Your task to perform on an android device: Do I have any events this weekend? Image 0: 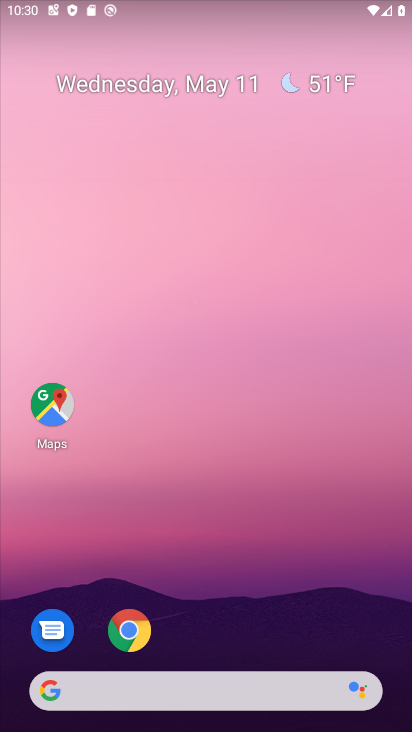
Step 0: drag from (207, 723) to (203, 24)
Your task to perform on an android device: Do I have any events this weekend? Image 1: 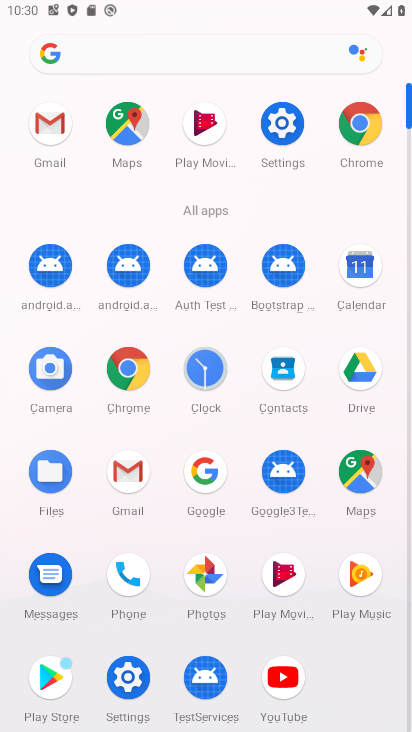
Step 1: click (363, 274)
Your task to perform on an android device: Do I have any events this weekend? Image 2: 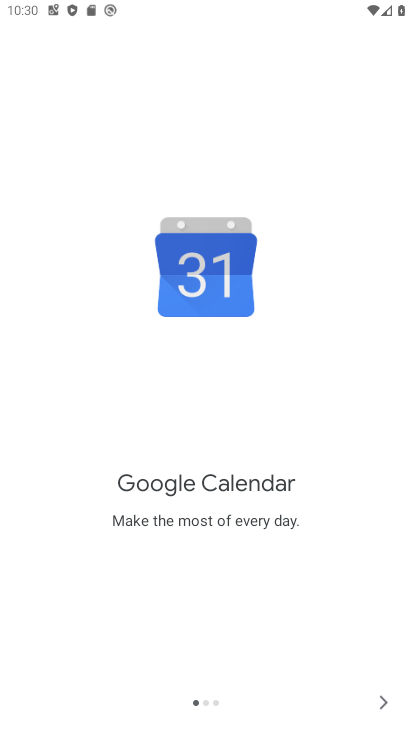
Step 2: click (383, 700)
Your task to perform on an android device: Do I have any events this weekend? Image 3: 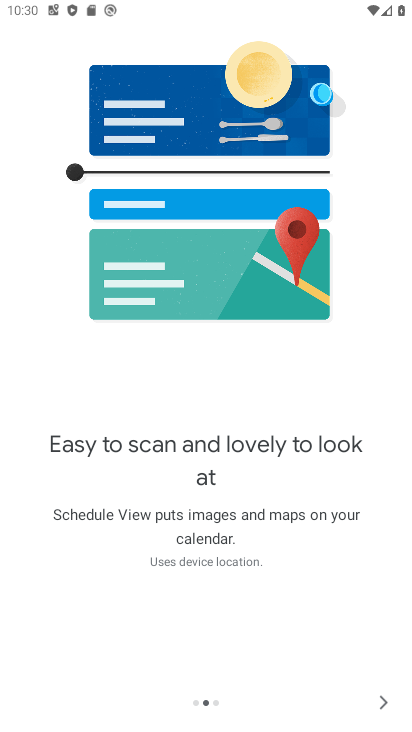
Step 3: click (382, 698)
Your task to perform on an android device: Do I have any events this weekend? Image 4: 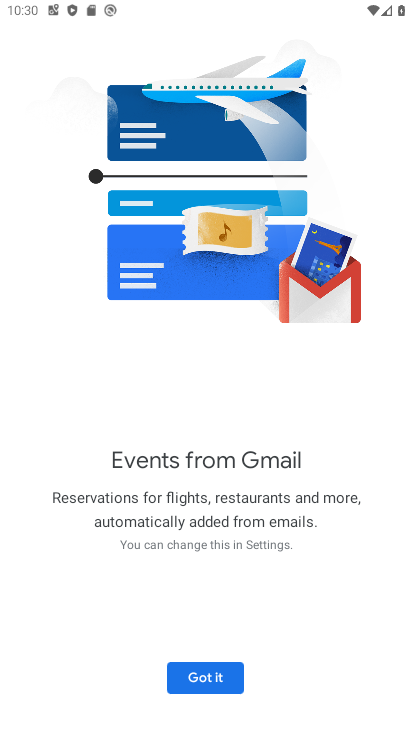
Step 4: click (191, 678)
Your task to perform on an android device: Do I have any events this weekend? Image 5: 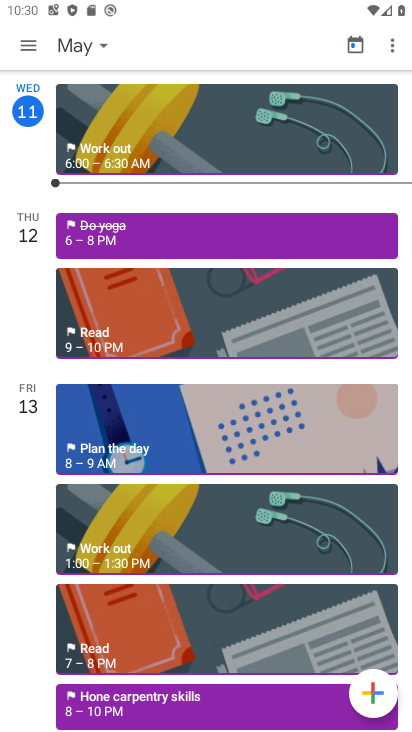
Step 5: click (32, 47)
Your task to perform on an android device: Do I have any events this weekend? Image 6: 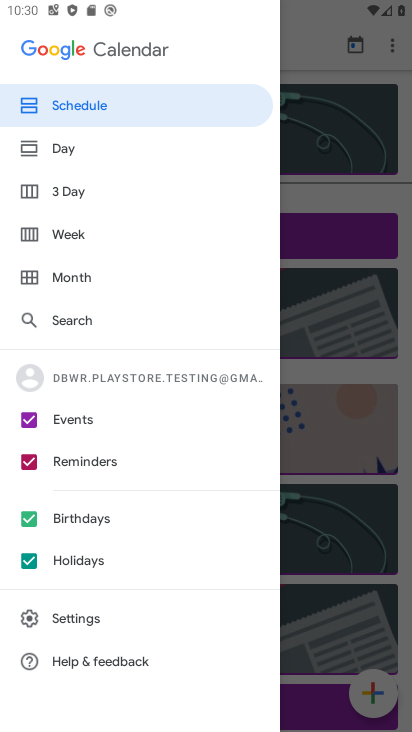
Step 6: click (32, 561)
Your task to perform on an android device: Do I have any events this weekend? Image 7: 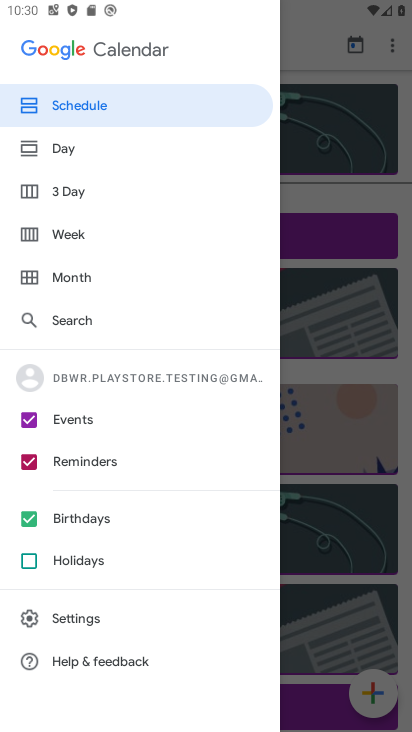
Step 7: click (28, 515)
Your task to perform on an android device: Do I have any events this weekend? Image 8: 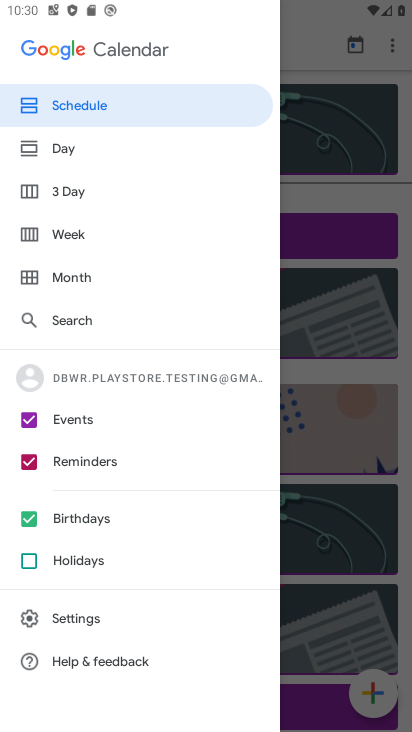
Step 8: click (27, 516)
Your task to perform on an android device: Do I have any events this weekend? Image 9: 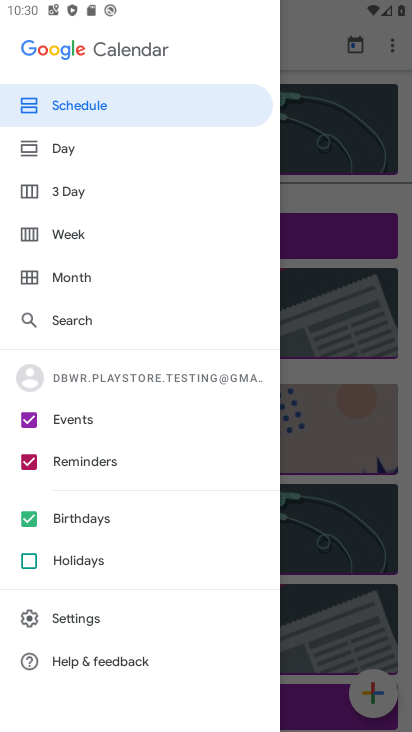
Step 9: click (31, 460)
Your task to perform on an android device: Do I have any events this weekend? Image 10: 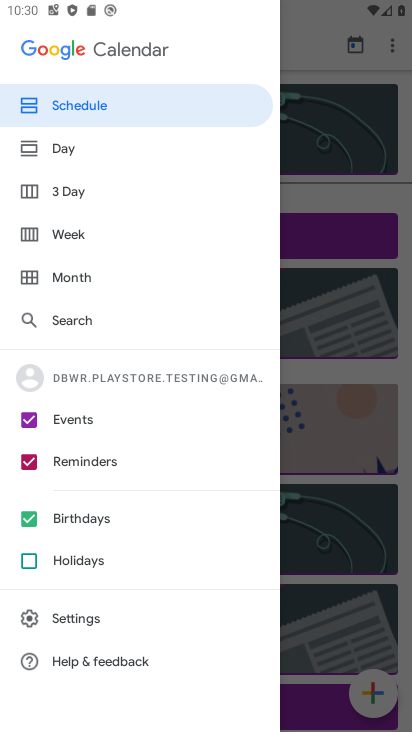
Step 10: click (27, 515)
Your task to perform on an android device: Do I have any events this weekend? Image 11: 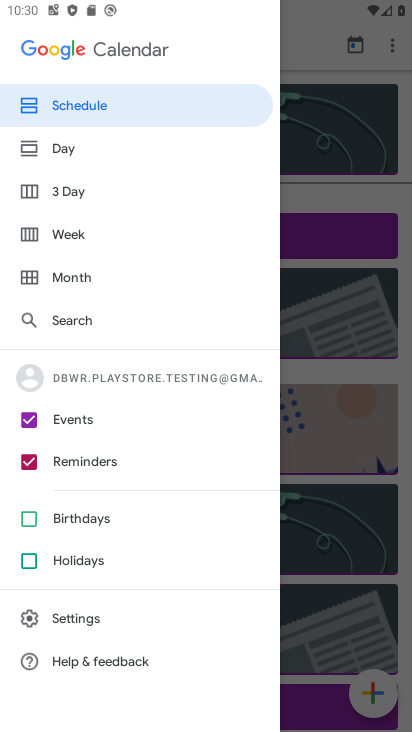
Step 11: click (33, 459)
Your task to perform on an android device: Do I have any events this weekend? Image 12: 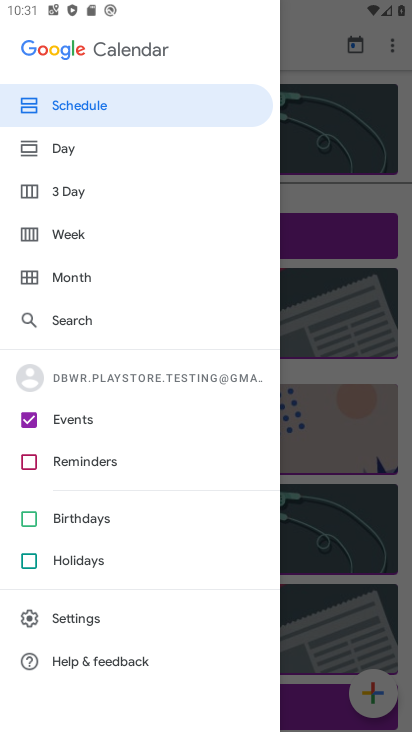
Step 12: click (81, 105)
Your task to perform on an android device: Do I have any events this weekend? Image 13: 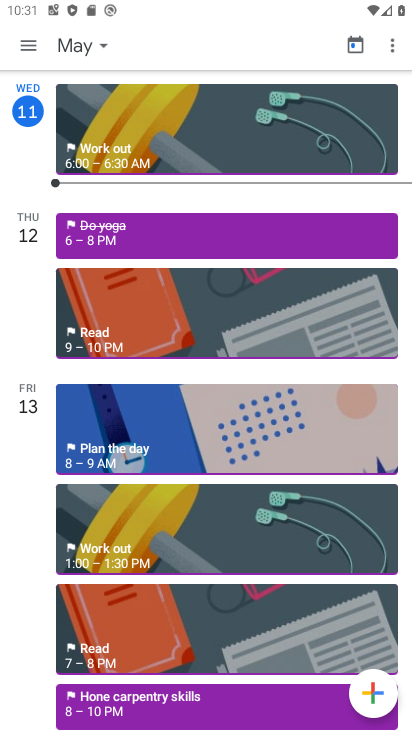
Step 13: click (78, 47)
Your task to perform on an android device: Do I have any events this weekend? Image 14: 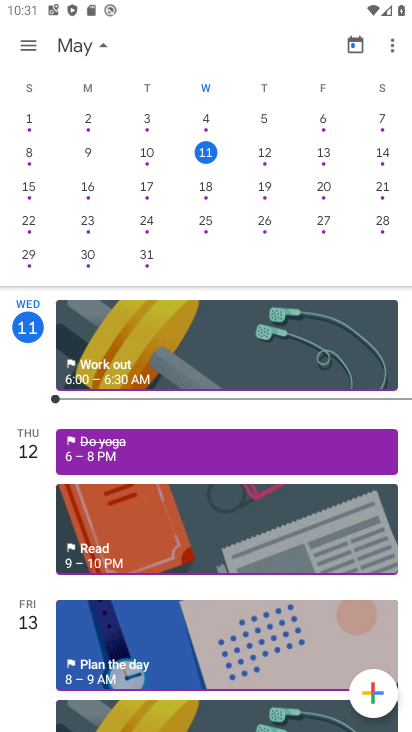
Step 14: click (380, 146)
Your task to perform on an android device: Do I have any events this weekend? Image 15: 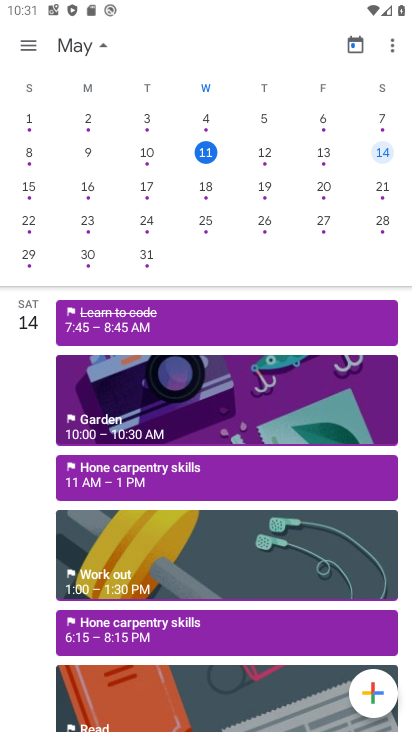
Step 15: task complete